Your task to perform on an android device: turn off wifi Image 0: 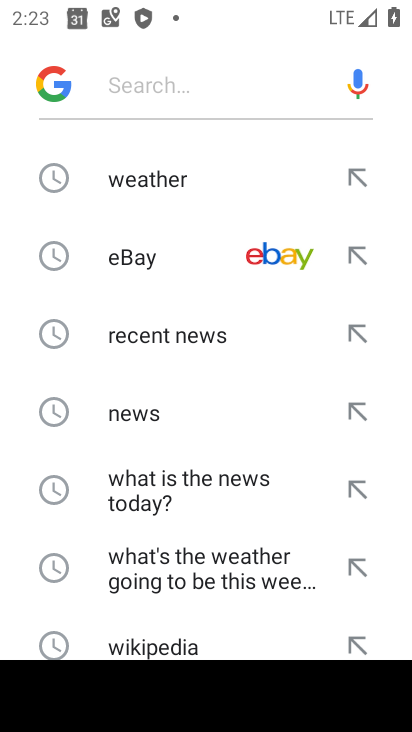
Step 0: press home button
Your task to perform on an android device: turn off wifi Image 1: 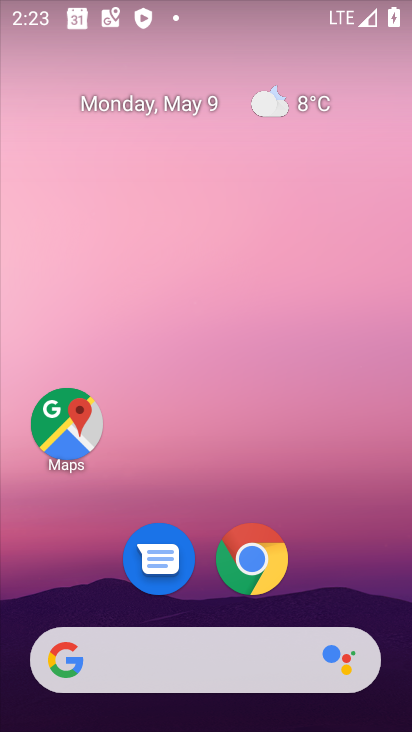
Step 1: drag from (249, 456) to (128, 19)
Your task to perform on an android device: turn off wifi Image 2: 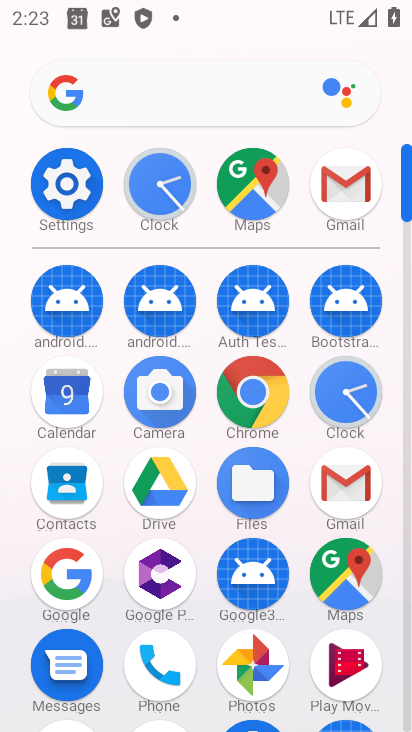
Step 2: click (65, 186)
Your task to perform on an android device: turn off wifi Image 3: 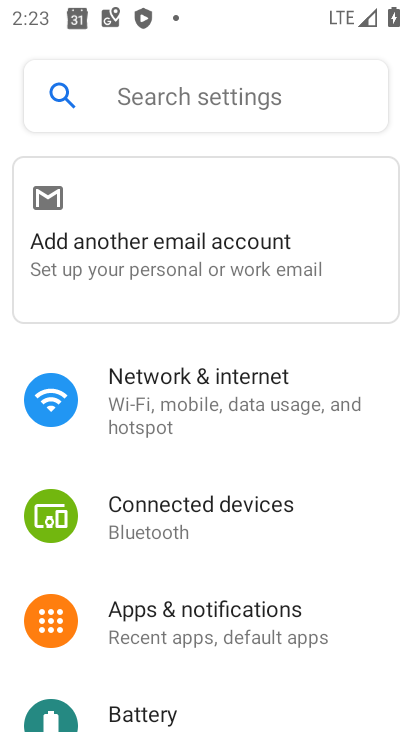
Step 3: click (179, 373)
Your task to perform on an android device: turn off wifi Image 4: 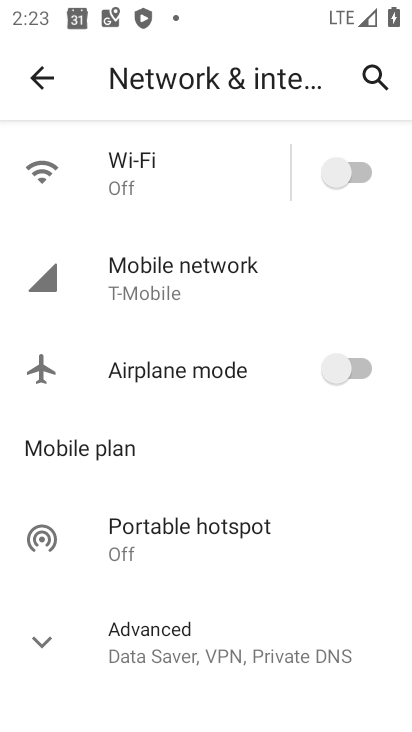
Step 4: task complete